Your task to perform on an android device: Show me popular games on the Play Store Image 0: 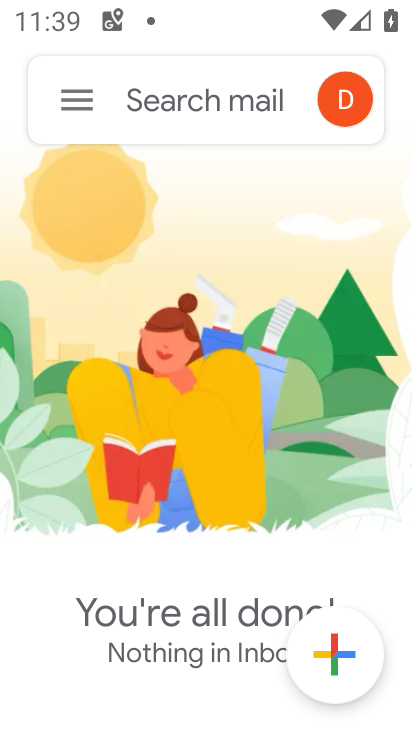
Step 0: press home button
Your task to perform on an android device: Show me popular games on the Play Store Image 1: 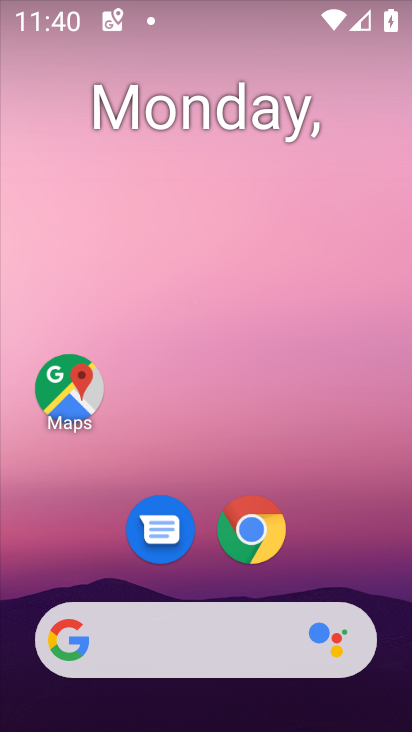
Step 1: drag from (218, 682) to (329, 137)
Your task to perform on an android device: Show me popular games on the Play Store Image 2: 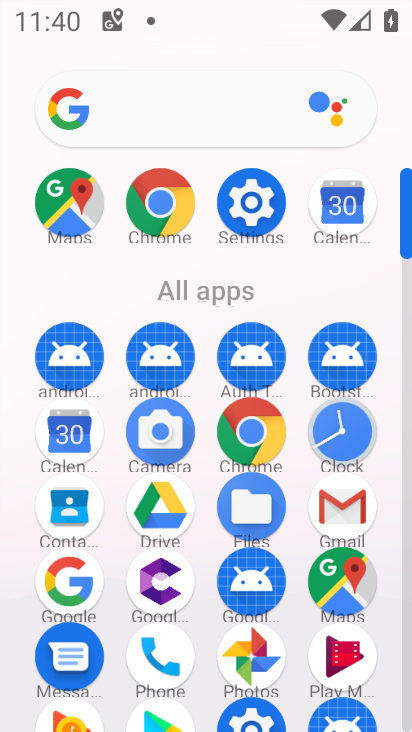
Step 2: click (152, 707)
Your task to perform on an android device: Show me popular games on the Play Store Image 3: 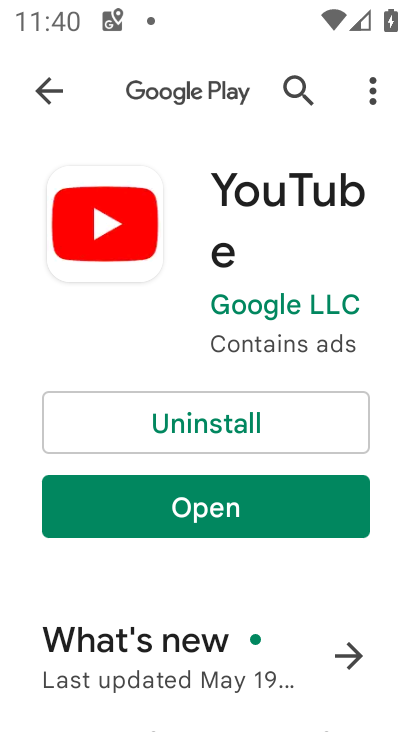
Step 3: click (275, 76)
Your task to perform on an android device: Show me popular games on the Play Store Image 4: 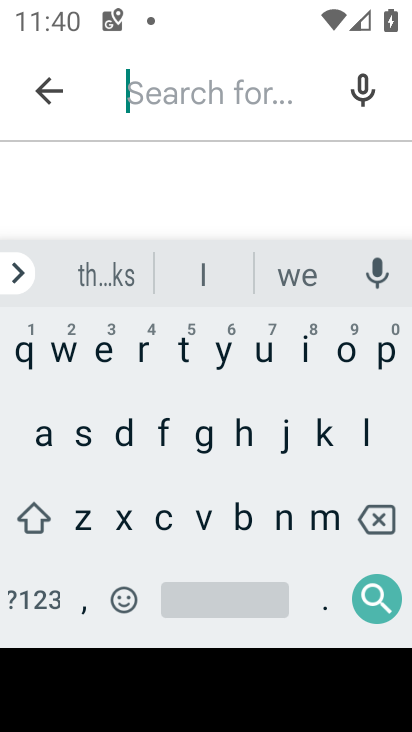
Step 4: click (386, 347)
Your task to perform on an android device: Show me popular games on the Play Store Image 5: 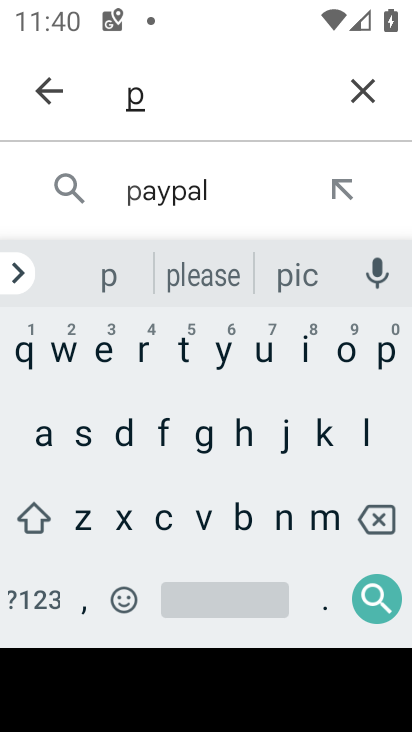
Step 5: click (345, 353)
Your task to perform on an android device: Show me popular games on the Play Store Image 6: 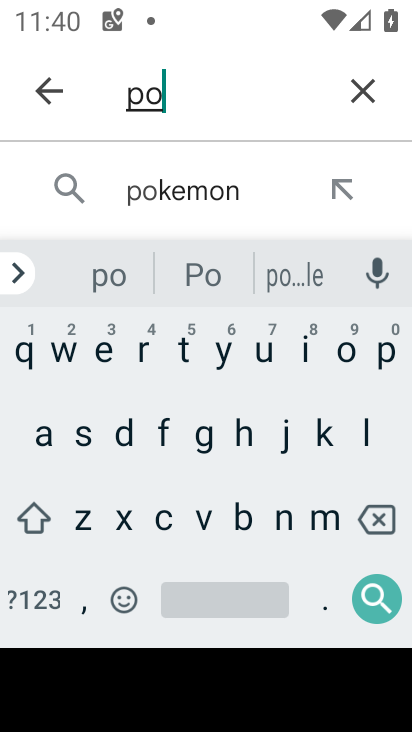
Step 6: click (385, 348)
Your task to perform on an android device: Show me popular games on the Play Store Image 7: 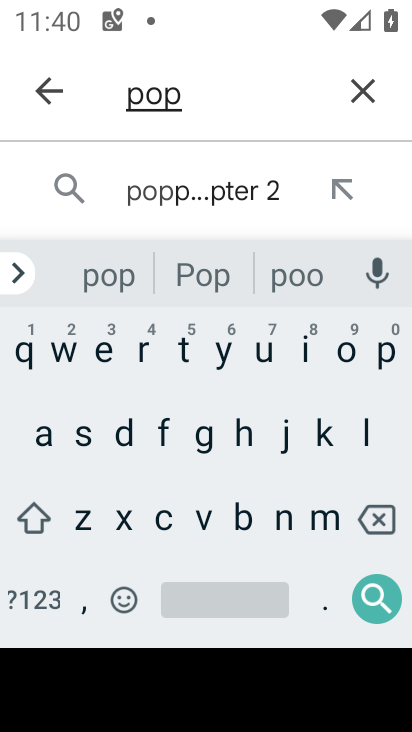
Step 7: click (257, 361)
Your task to perform on an android device: Show me popular games on the Play Store Image 8: 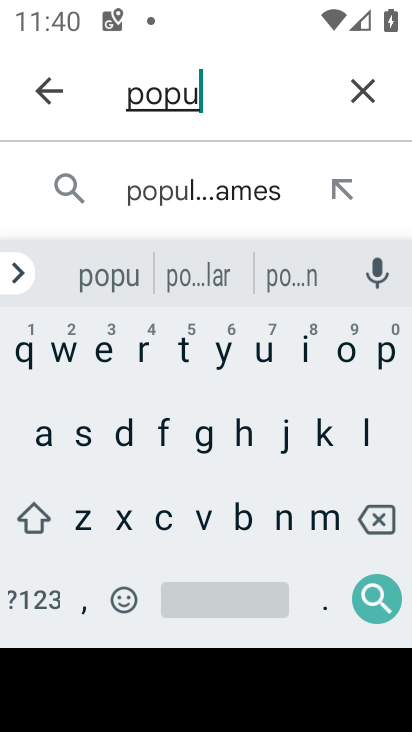
Step 8: click (204, 188)
Your task to perform on an android device: Show me popular games on the Play Store Image 9: 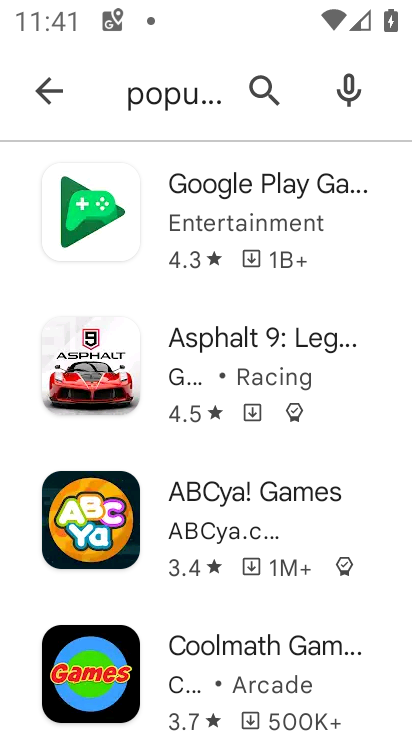
Step 9: task complete